Your task to perform on an android device: Open the stopwatch Image 0: 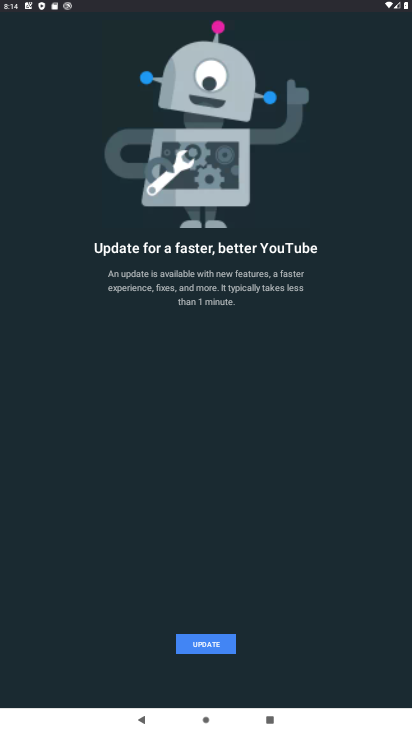
Step 0: press home button
Your task to perform on an android device: Open the stopwatch Image 1: 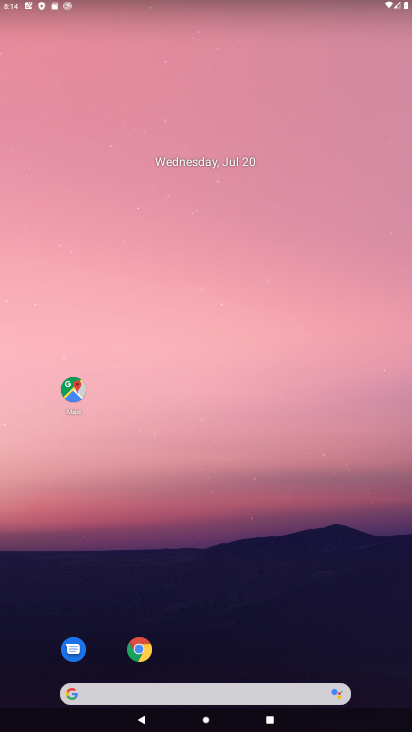
Step 1: drag from (212, 690) to (236, 118)
Your task to perform on an android device: Open the stopwatch Image 2: 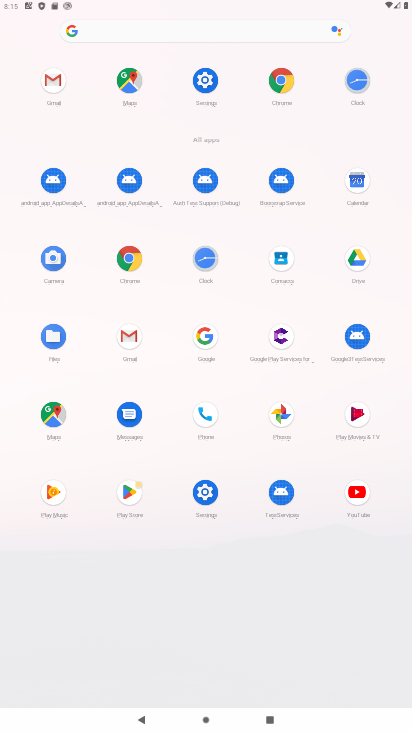
Step 2: click (201, 260)
Your task to perform on an android device: Open the stopwatch Image 3: 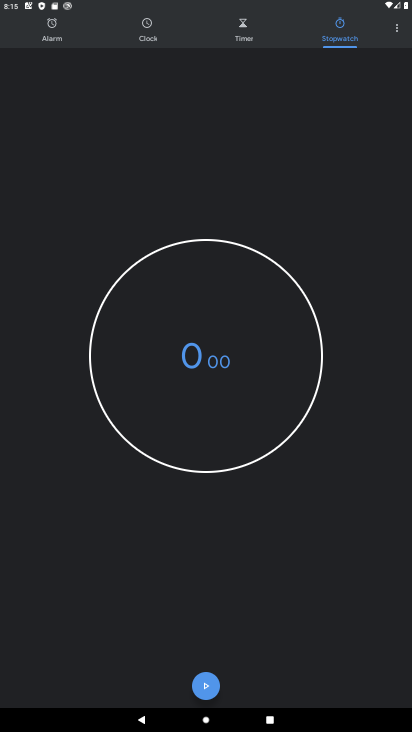
Step 3: task complete